Your task to perform on an android device: Search for sushi restaurants on Maps Image 0: 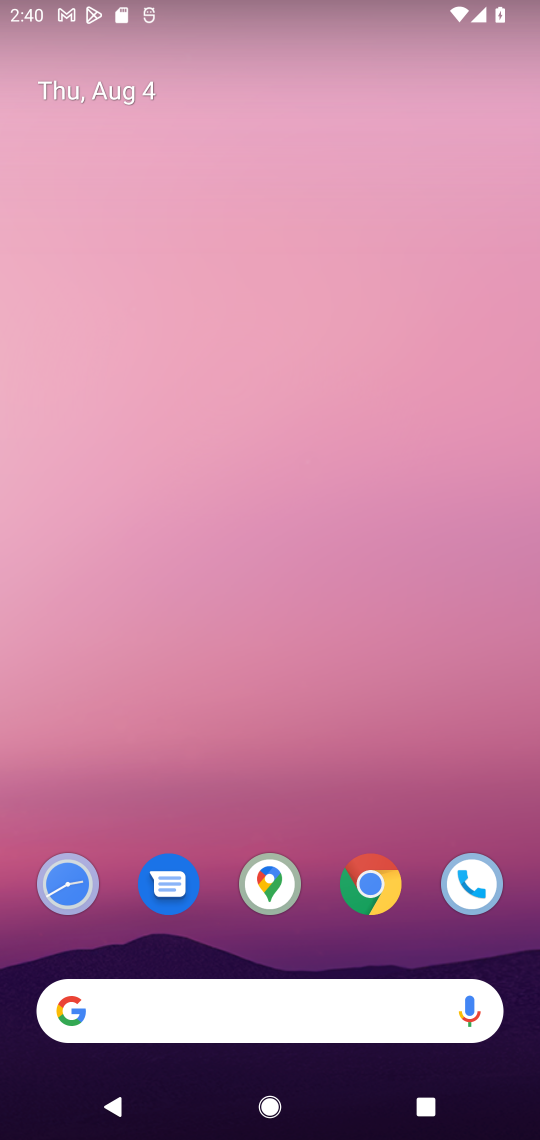
Step 0: click (267, 880)
Your task to perform on an android device: Search for sushi restaurants on Maps Image 1: 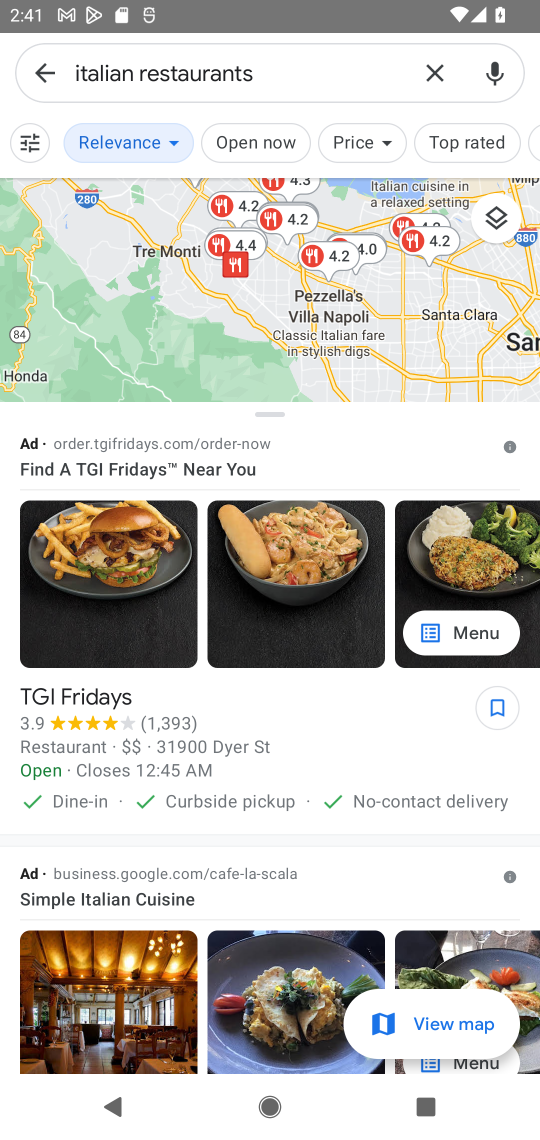
Step 1: click (427, 89)
Your task to perform on an android device: Search for sushi restaurants on Maps Image 2: 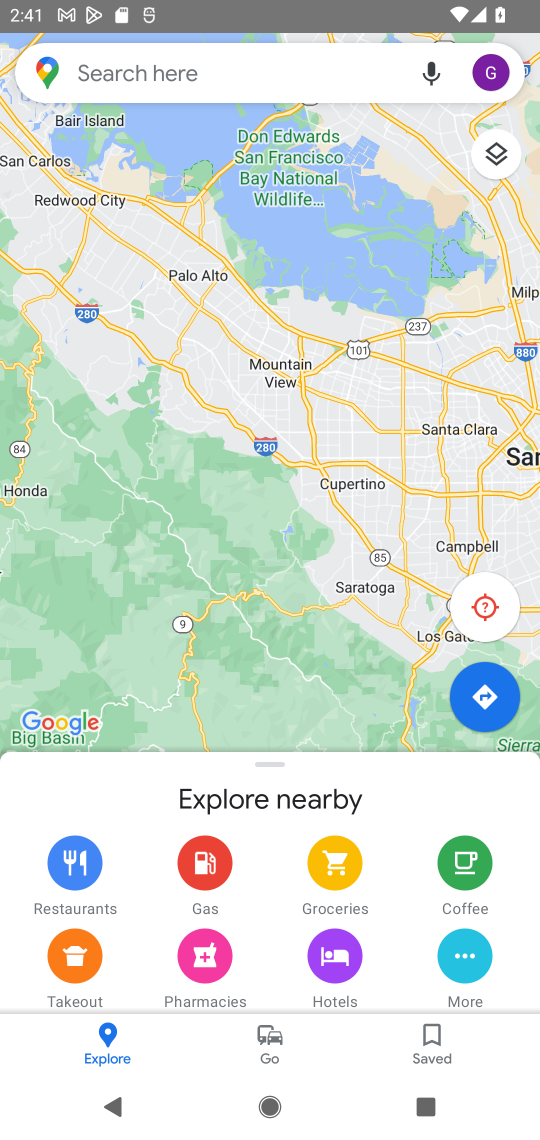
Step 2: type "sushi "
Your task to perform on an android device: Search for sushi restaurants on Maps Image 3: 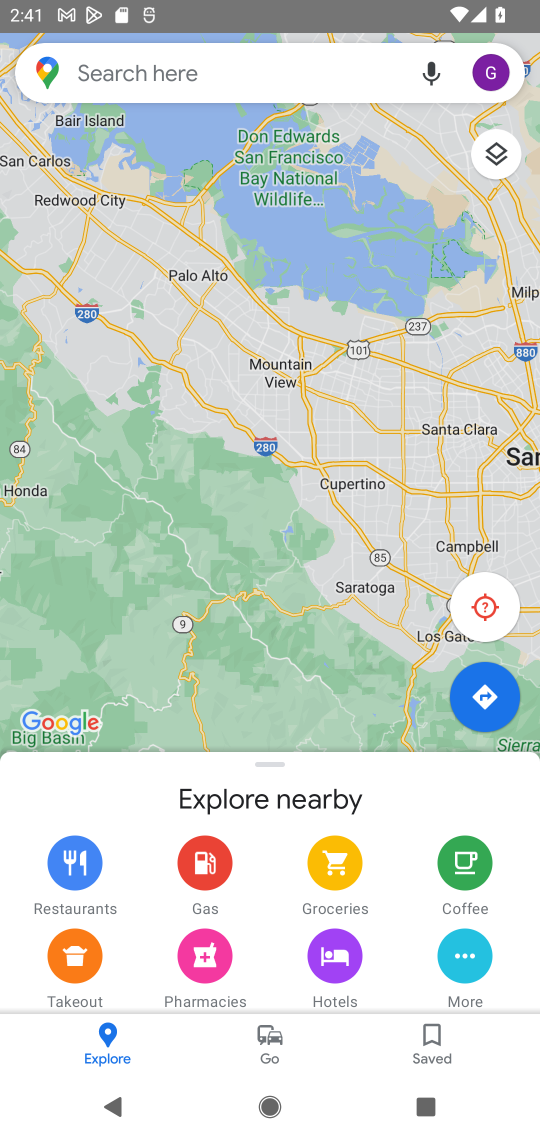
Step 3: click (207, 83)
Your task to perform on an android device: Search for sushi restaurants on Maps Image 4: 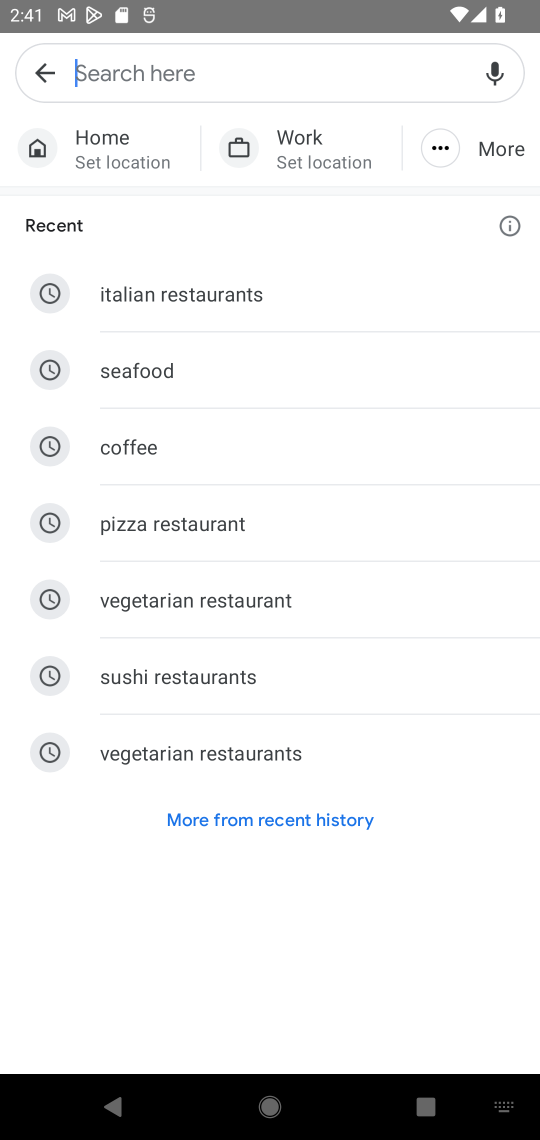
Step 4: type "sushi"
Your task to perform on an android device: Search for sushi restaurants on Maps Image 5: 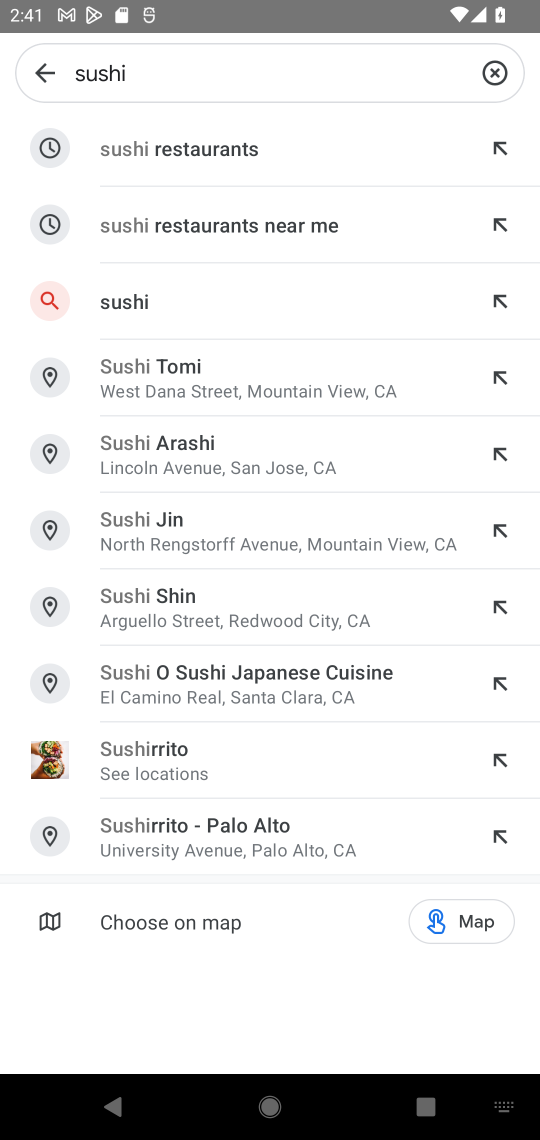
Step 5: click (292, 127)
Your task to perform on an android device: Search for sushi restaurants on Maps Image 6: 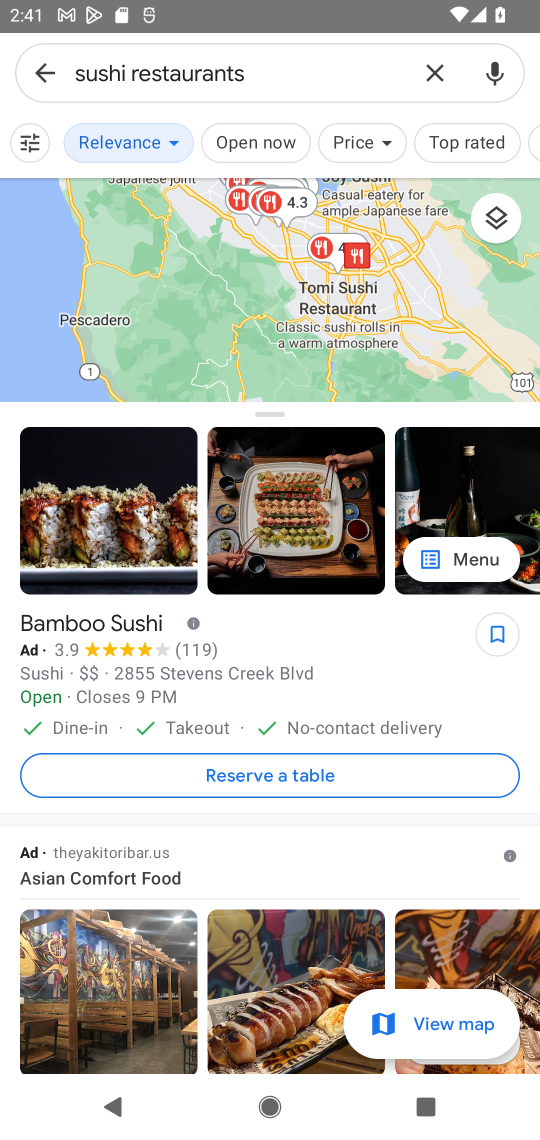
Step 6: task complete